Your task to perform on an android device: Open Chrome and go to the settings page Image 0: 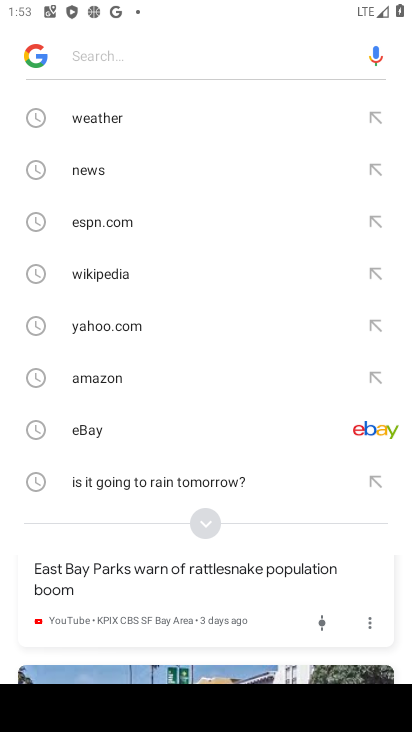
Step 0: press back button
Your task to perform on an android device: Open Chrome and go to the settings page Image 1: 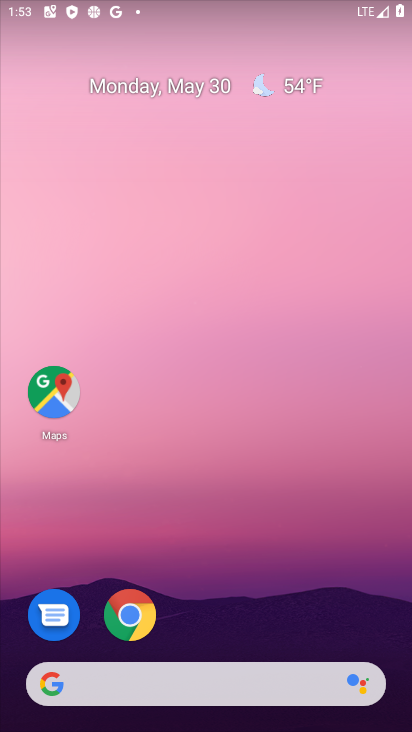
Step 1: click (140, 611)
Your task to perform on an android device: Open Chrome and go to the settings page Image 2: 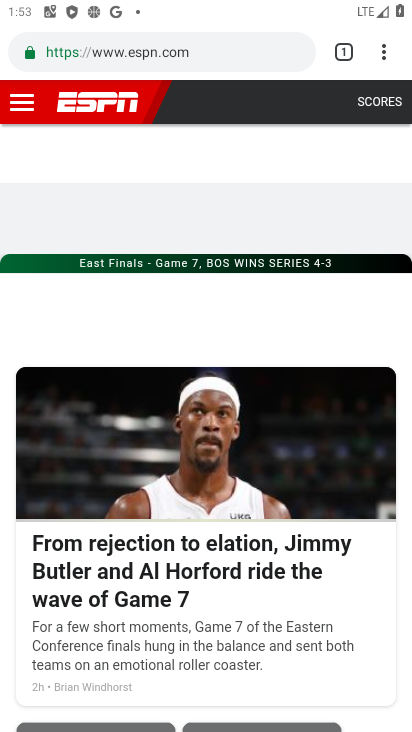
Step 2: click (397, 62)
Your task to perform on an android device: Open Chrome and go to the settings page Image 3: 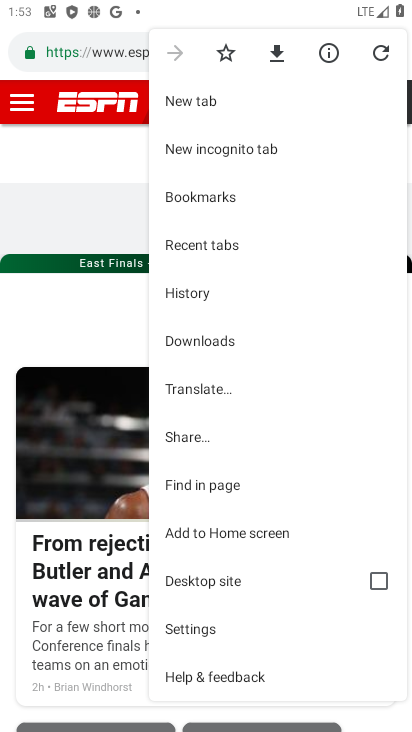
Step 3: click (227, 628)
Your task to perform on an android device: Open Chrome and go to the settings page Image 4: 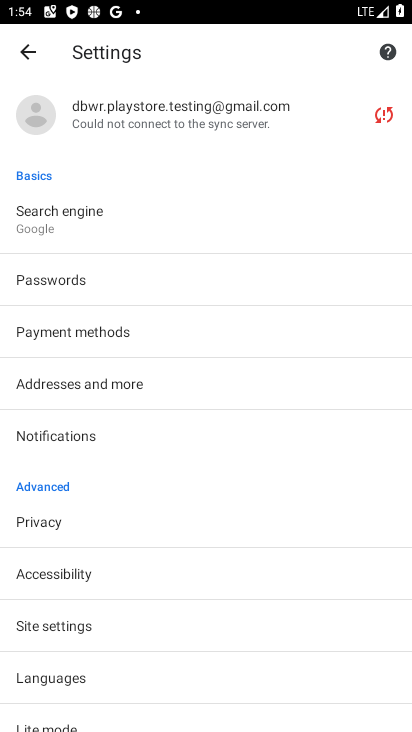
Step 4: task complete